Your task to perform on an android device: Search for razer naga on costco.com, select the first entry, add it to the cart, then select checkout. Image 0: 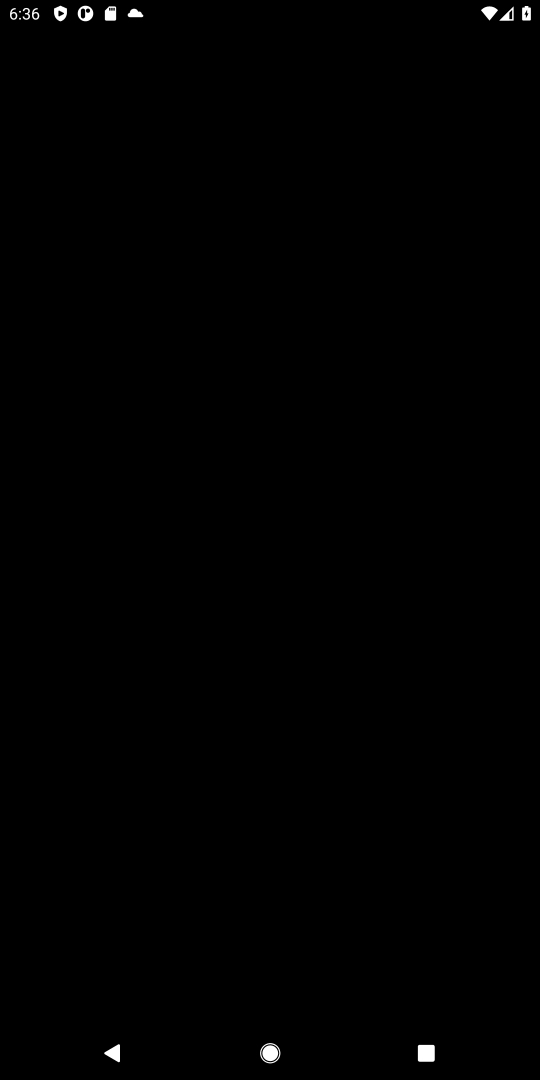
Step 0: press home button
Your task to perform on an android device: Search for razer naga on costco.com, select the first entry, add it to the cart, then select checkout. Image 1: 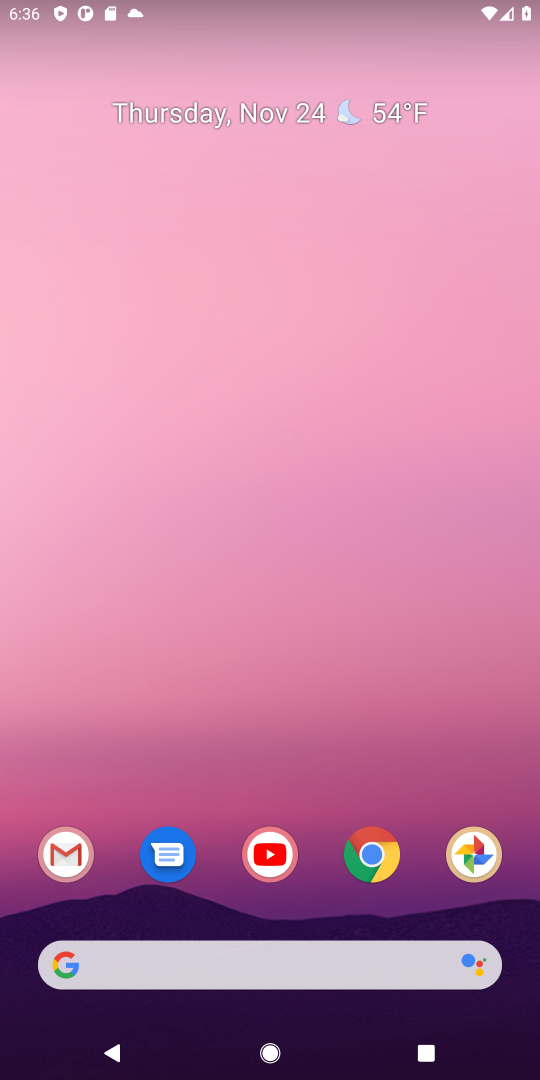
Step 1: click (381, 853)
Your task to perform on an android device: Search for razer naga on costco.com, select the first entry, add it to the cart, then select checkout. Image 2: 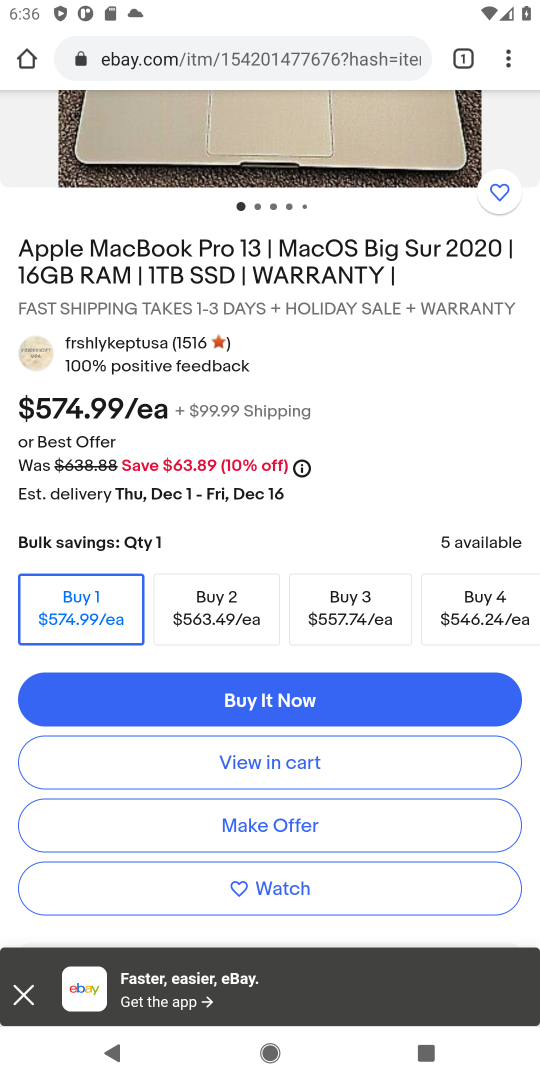
Step 2: click (216, 53)
Your task to perform on an android device: Search for razer naga on costco.com, select the first entry, add it to the cart, then select checkout. Image 3: 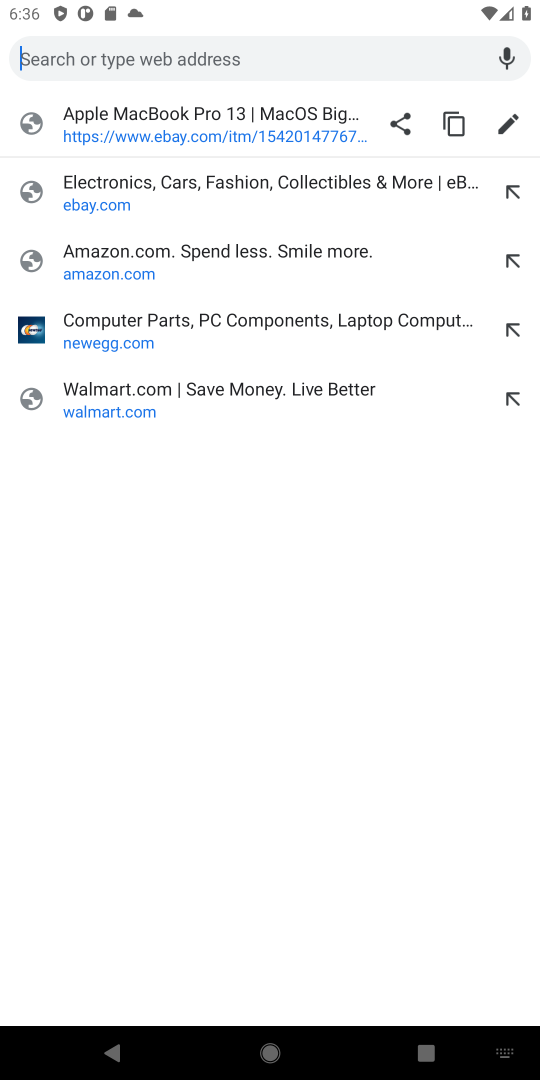
Step 3: type "costco.com"
Your task to perform on an android device: Search for razer naga on costco.com, select the first entry, add it to the cart, then select checkout. Image 4: 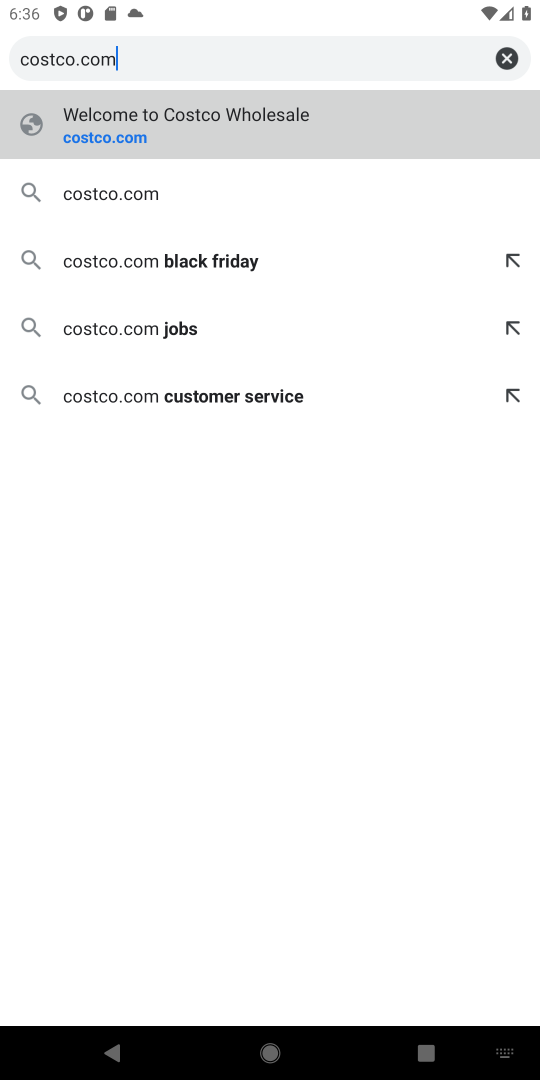
Step 4: click (104, 135)
Your task to perform on an android device: Search for razer naga on costco.com, select the first entry, add it to the cart, then select checkout. Image 5: 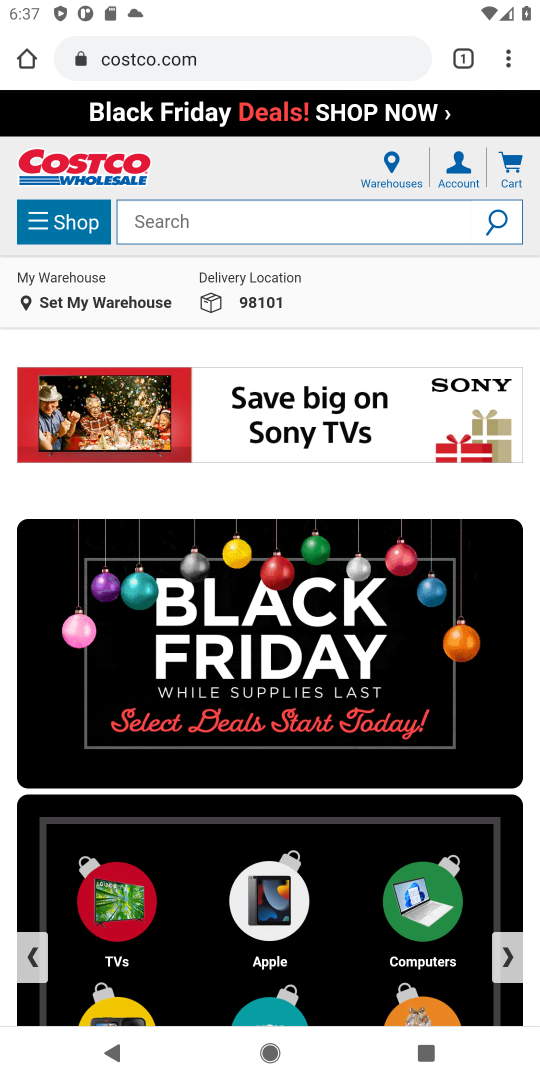
Step 5: click (169, 221)
Your task to perform on an android device: Search for razer naga on costco.com, select the first entry, add it to the cart, then select checkout. Image 6: 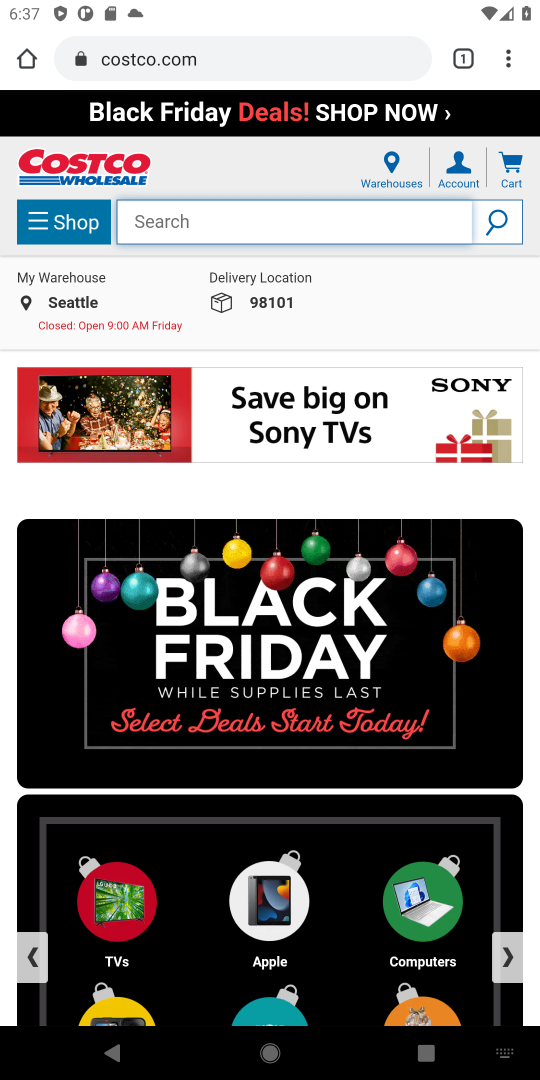
Step 6: type "razer naga"
Your task to perform on an android device: Search for razer naga on costco.com, select the first entry, add it to the cart, then select checkout. Image 7: 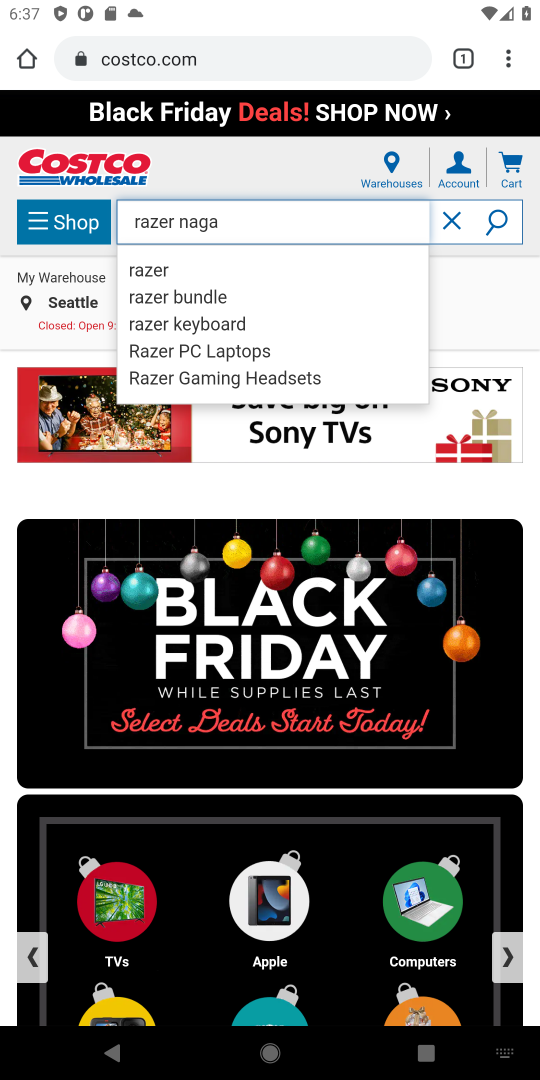
Step 7: click (492, 225)
Your task to perform on an android device: Search for razer naga on costco.com, select the first entry, add it to the cart, then select checkout. Image 8: 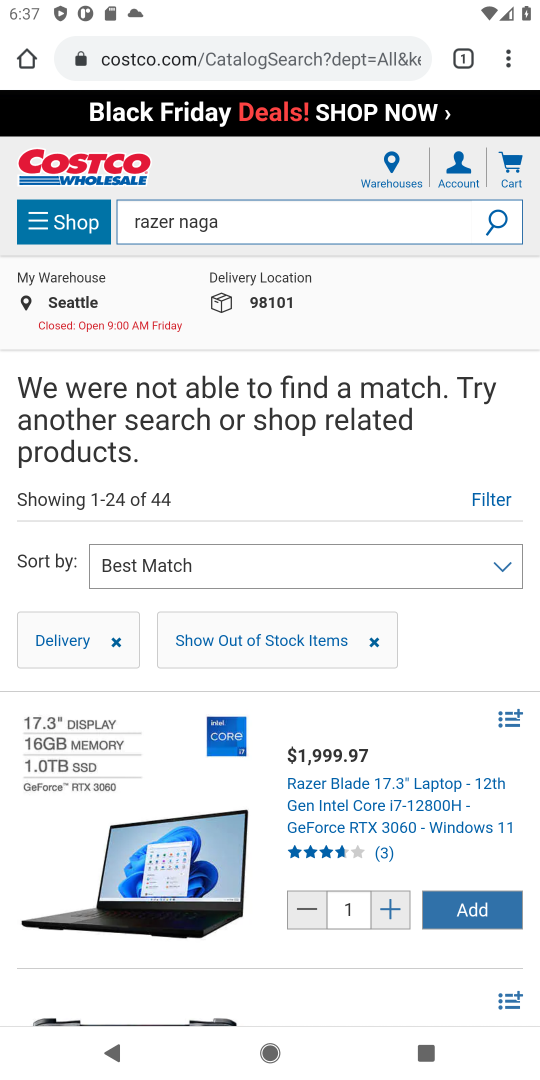
Step 8: task complete